Your task to perform on an android device: What is the recent news? Image 0: 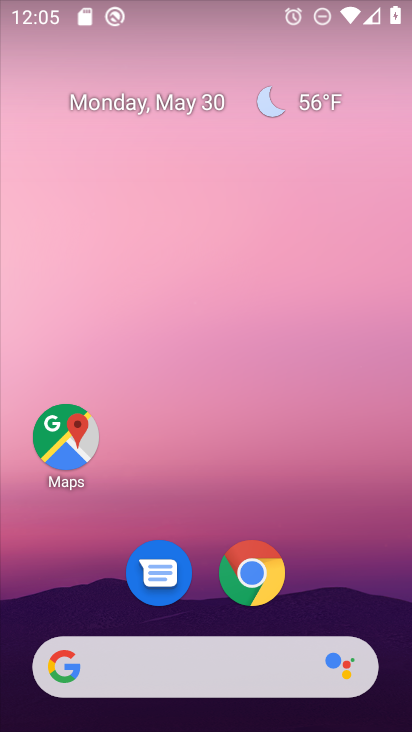
Step 0: drag from (322, 622) to (344, 21)
Your task to perform on an android device: What is the recent news? Image 1: 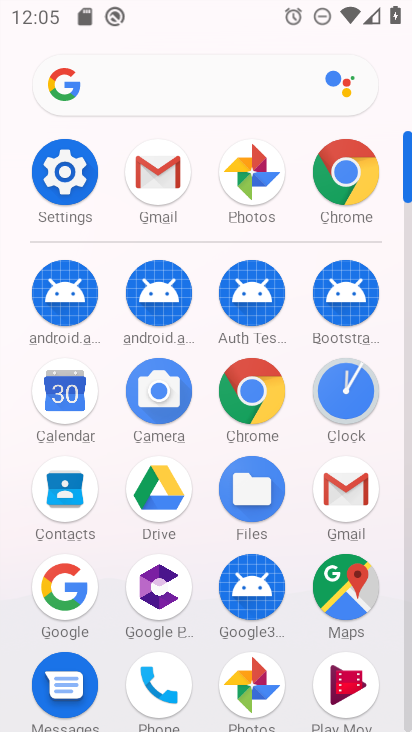
Step 1: click (270, 378)
Your task to perform on an android device: What is the recent news? Image 2: 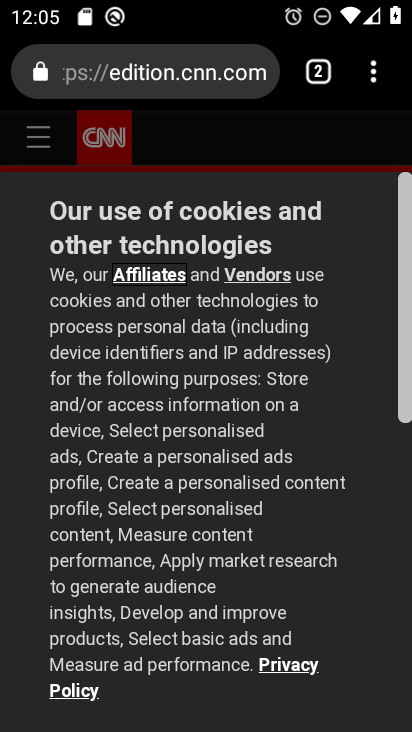
Step 2: click (222, 80)
Your task to perform on an android device: What is the recent news? Image 3: 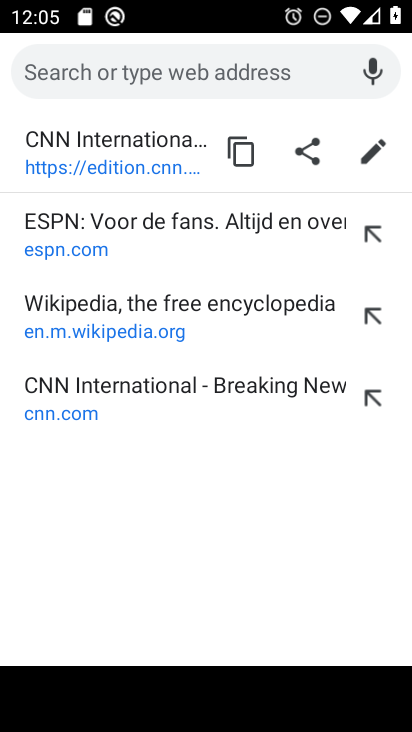
Step 3: type "recent news"
Your task to perform on an android device: What is the recent news? Image 4: 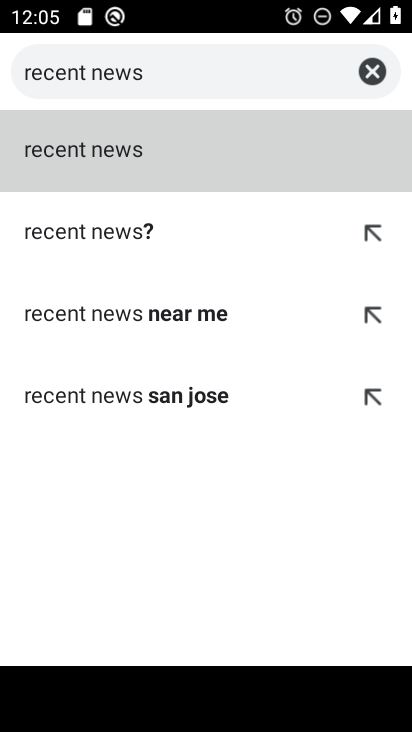
Step 4: click (149, 169)
Your task to perform on an android device: What is the recent news? Image 5: 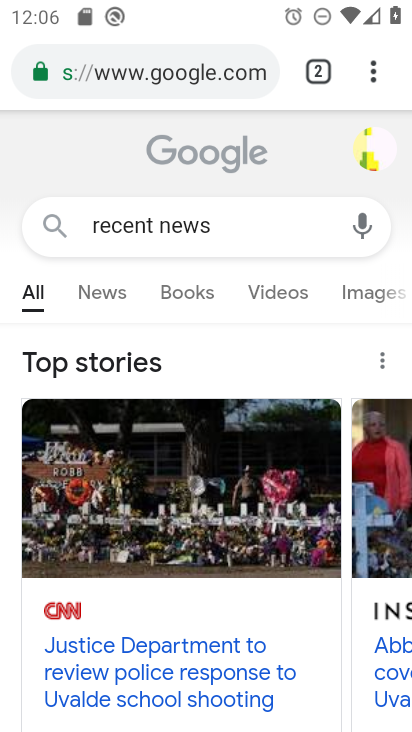
Step 5: task complete